Your task to perform on an android device: Go to Google Image 0: 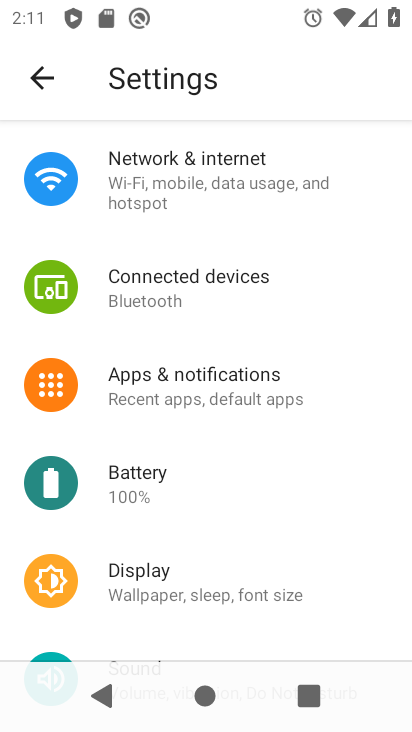
Step 0: press home button
Your task to perform on an android device: Go to Google Image 1: 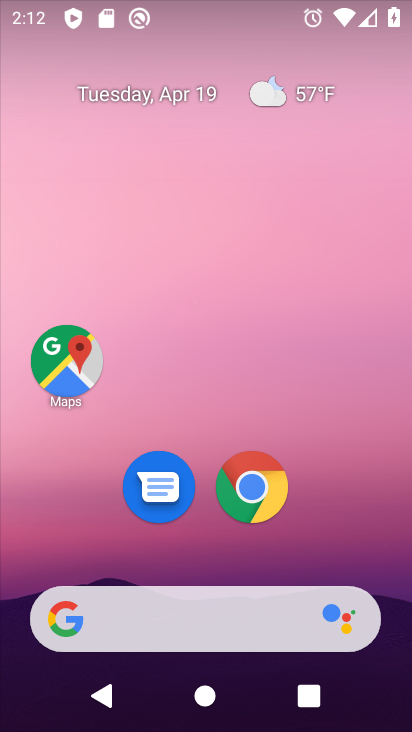
Step 1: drag from (353, 517) to (374, 88)
Your task to perform on an android device: Go to Google Image 2: 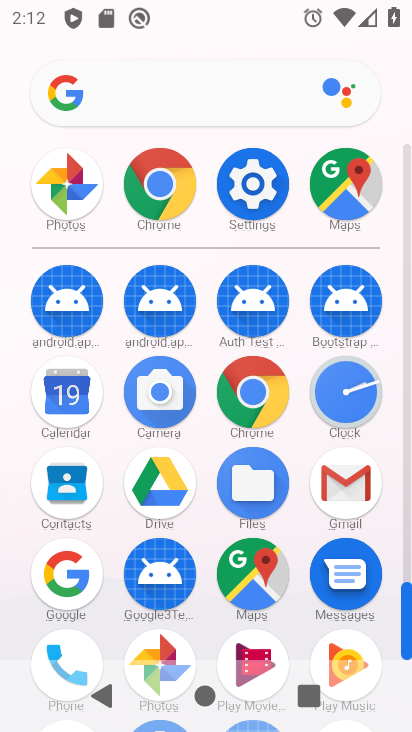
Step 2: click (73, 566)
Your task to perform on an android device: Go to Google Image 3: 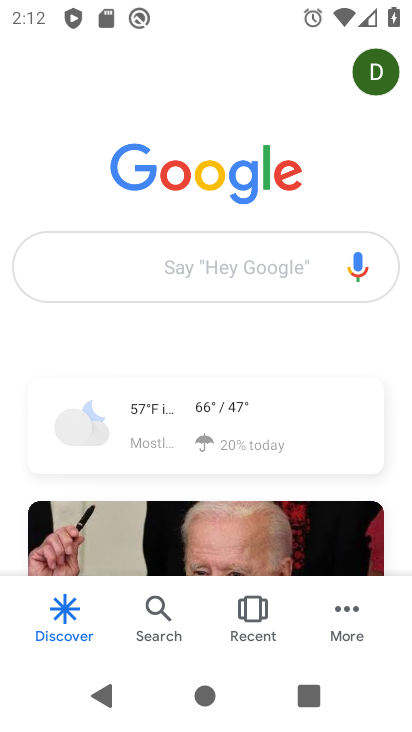
Step 3: task complete